Your task to perform on an android device: What's the news in Paraguay? Image 0: 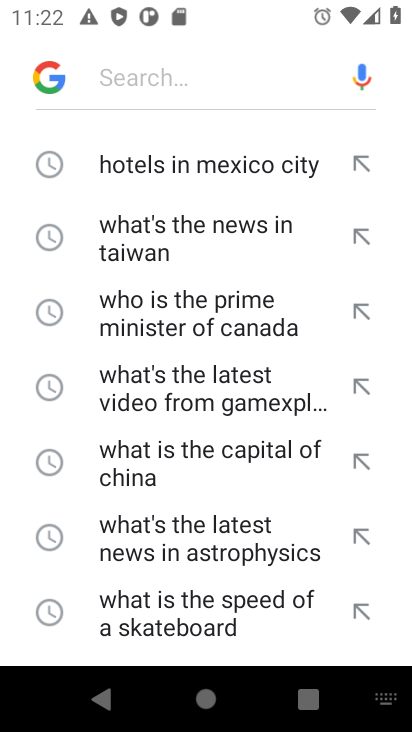
Step 0: press home button
Your task to perform on an android device: What's the news in Paraguay? Image 1: 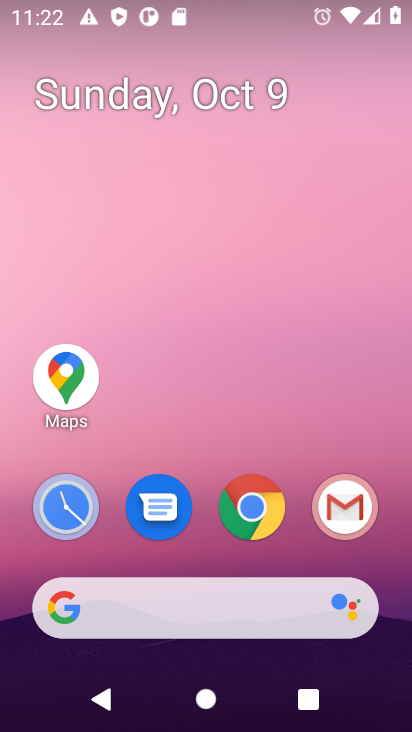
Step 1: click (241, 620)
Your task to perform on an android device: What's the news in Paraguay? Image 2: 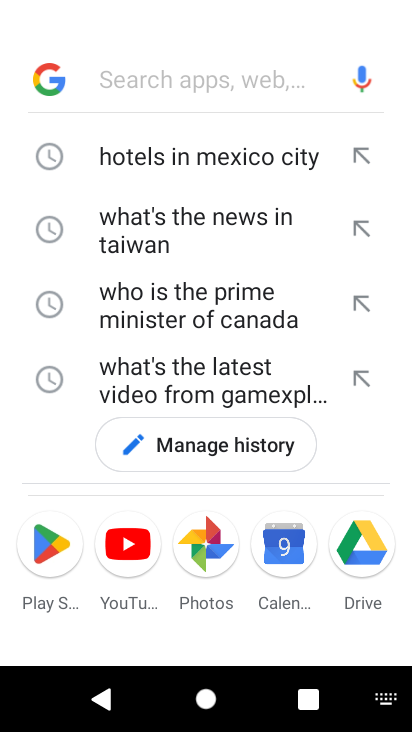
Step 2: type "What's the news in Paraguay"
Your task to perform on an android device: What's the news in Paraguay? Image 3: 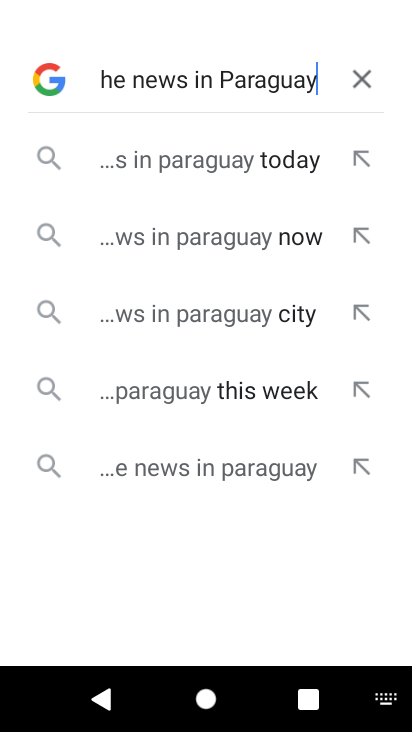
Step 3: press enter
Your task to perform on an android device: What's the news in Paraguay? Image 4: 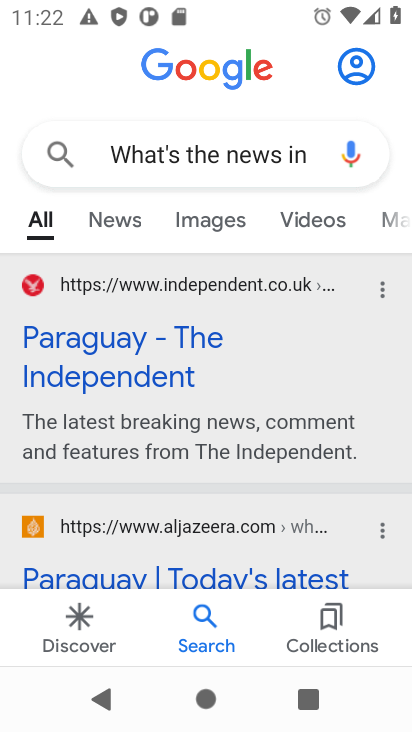
Step 4: drag from (262, 503) to (250, 317)
Your task to perform on an android device: What's the news in Paraguay? Image 5: 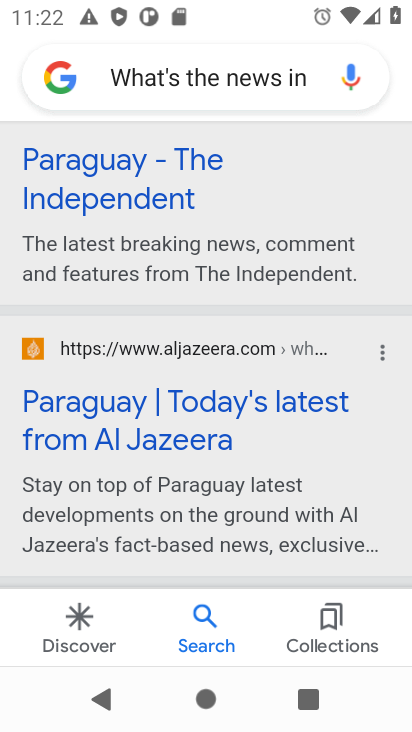
Step 5: click (196, 413)
Your task to perform on an android device: What's the news in Paraguay? Image 6: 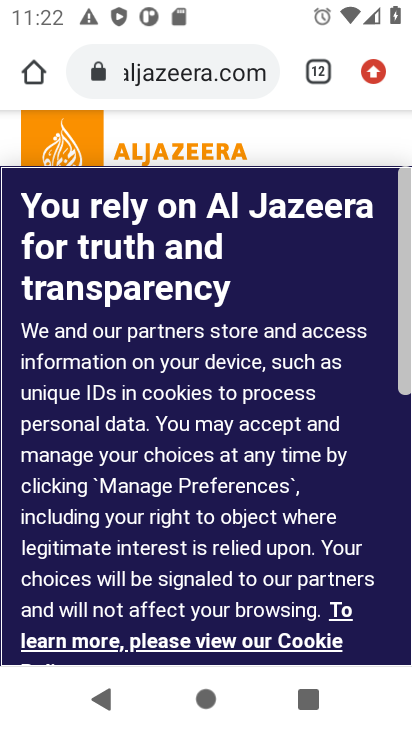
Step 6: drag from (248, 544) to (255, 222)
Your task to perform on an android device: What's the news in Paraguay? Image 7: 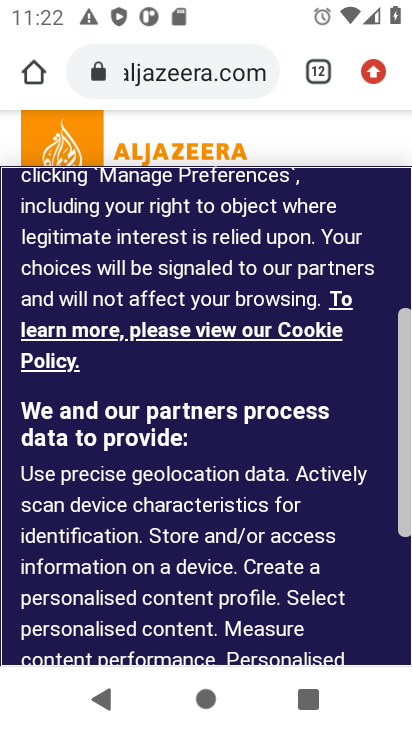
Step 7: drag from (229, 548) to (227, 248)
Your task to perform on an android device: What's the news in Paraguay? Image 8: 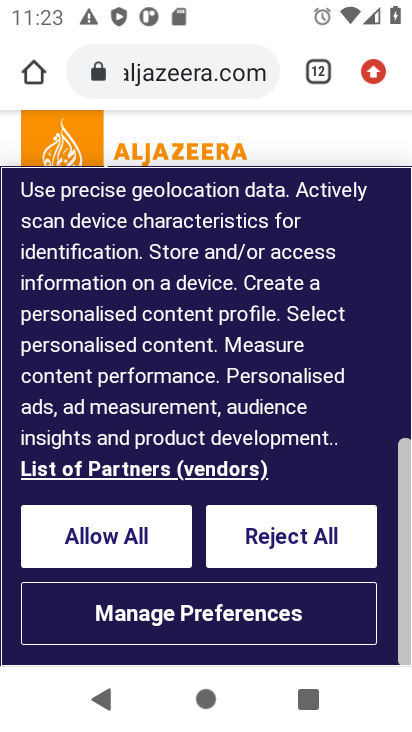
Step 8: click (99, 623)
Your task to perform on an android device: What's the news in Paraguay? Image 9: 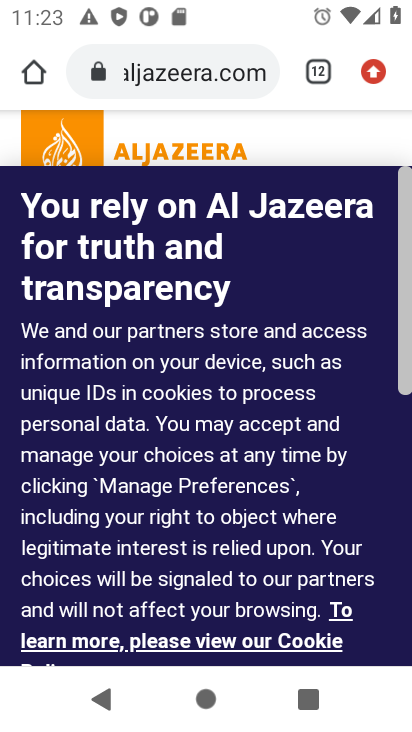
Step 9: click (92, 541)
Your task to perform on an android device: What's the news in Paraguay? Image 10: 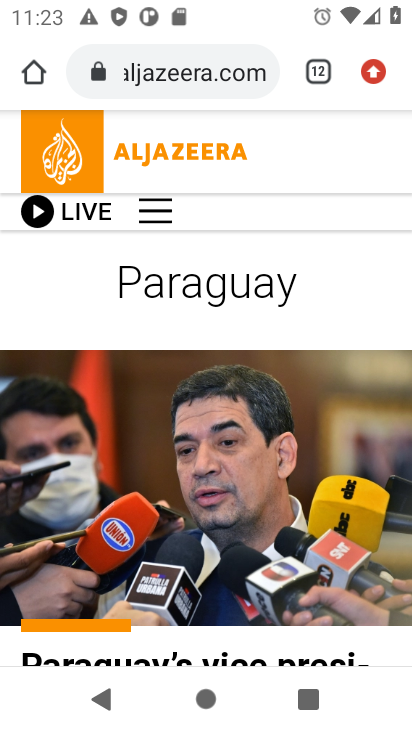
Step 10: task complete